Your task to perform on an android device: Open internet settings Image 0: 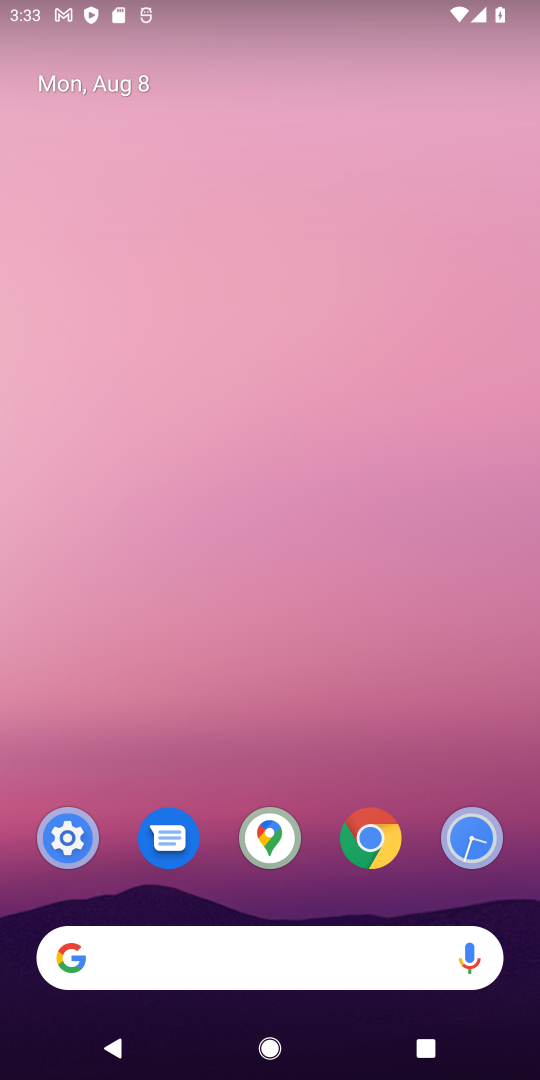
Step 0: drag from (239, 986) to (263, 367)
Your task to perform on an android device: Open internet settings Image 1: 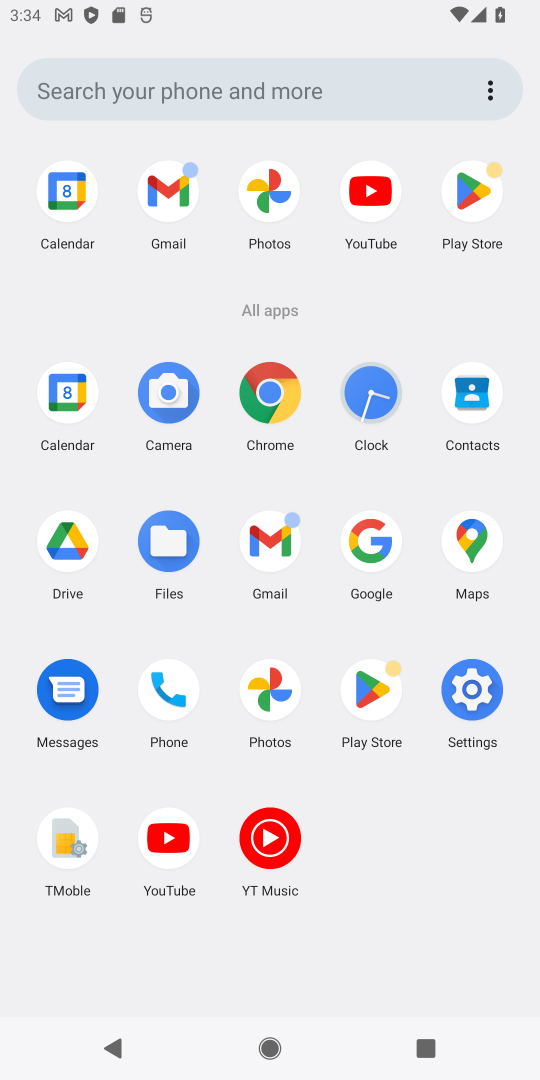
Step 1: click (474, 695)
Your task to perform on an android device: Open internet settings Image 2: 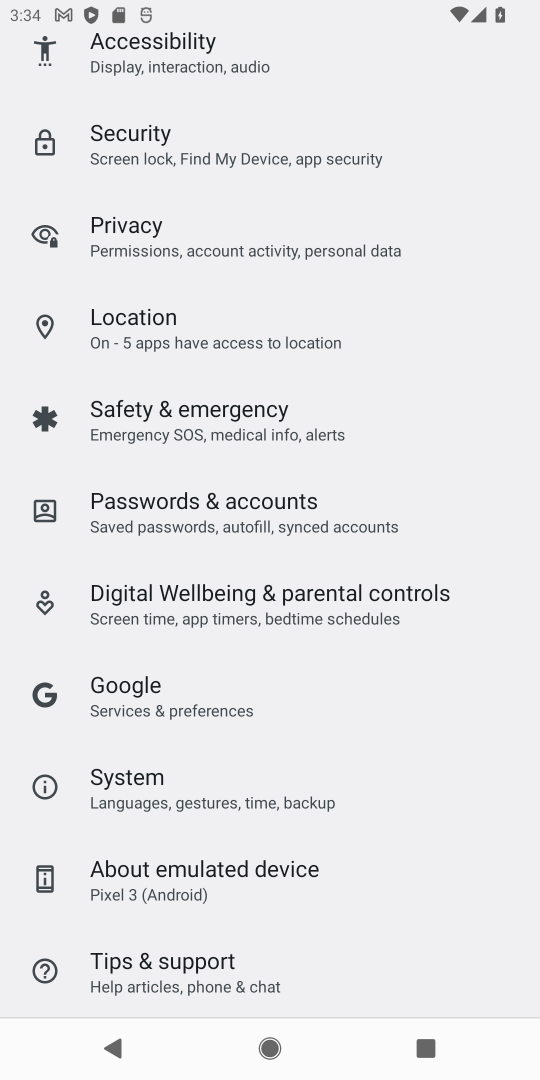
Step 2: drag from (355, 380) to (399, 688)
Your task to perform on an android device: Open internet settings Image 3: 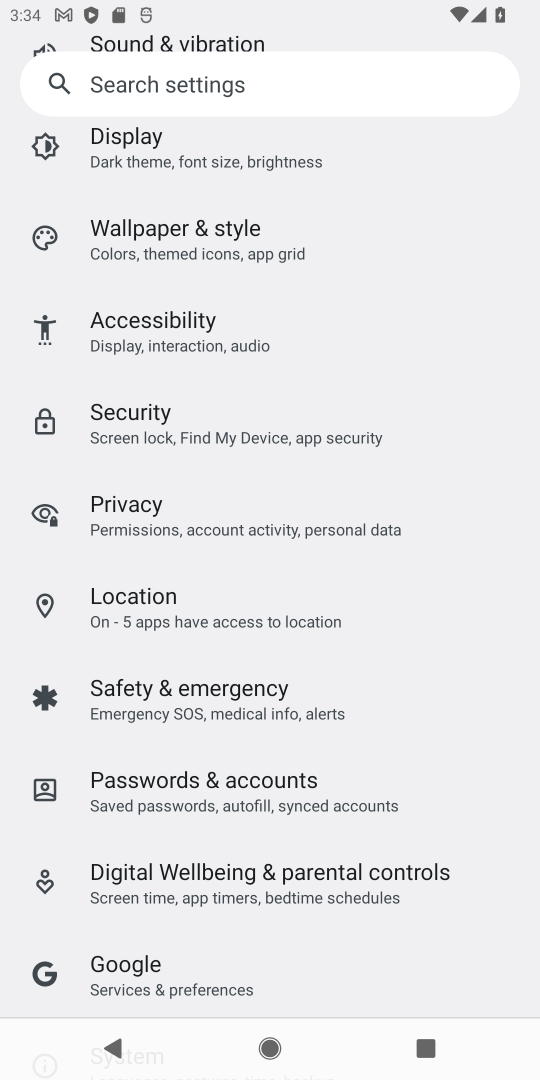
Step 3: drag from (314, 348) to (298, 589)
Your task to perform on an android device: Open internet settings Image 4: 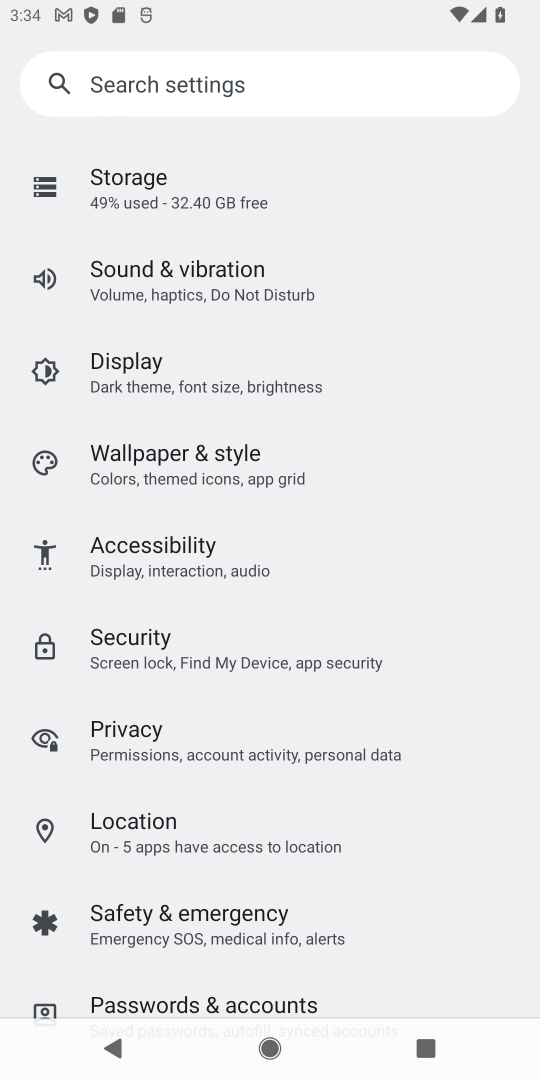
Step 4: drag from (321, 241) to (323, 441)
Your task to perform on an android device: Open internet settings Image 5: 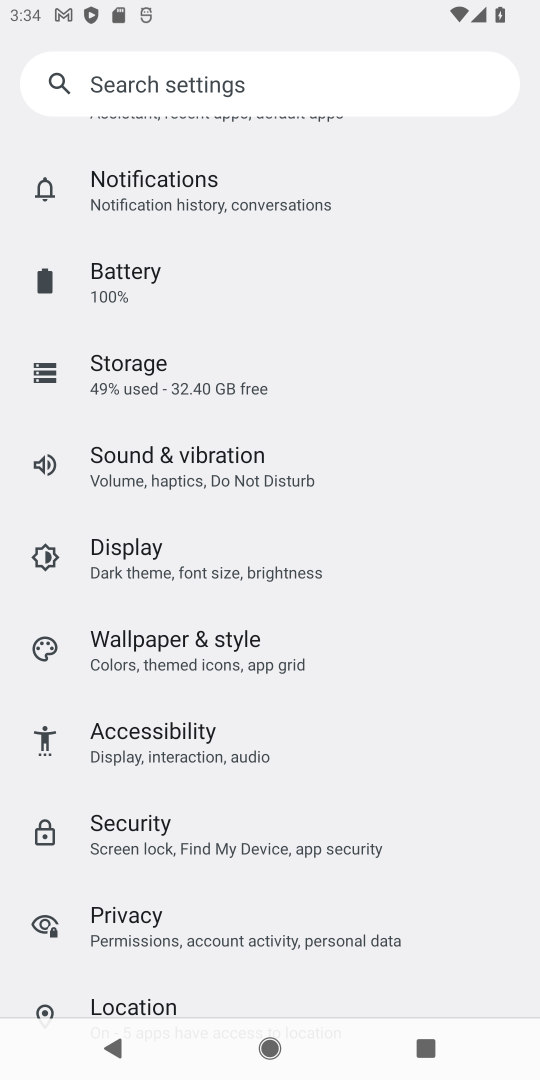
Step 5: drag from (309, 294) to (332, 587)
Your task to perform on an android device: Open internet settings Image 6: 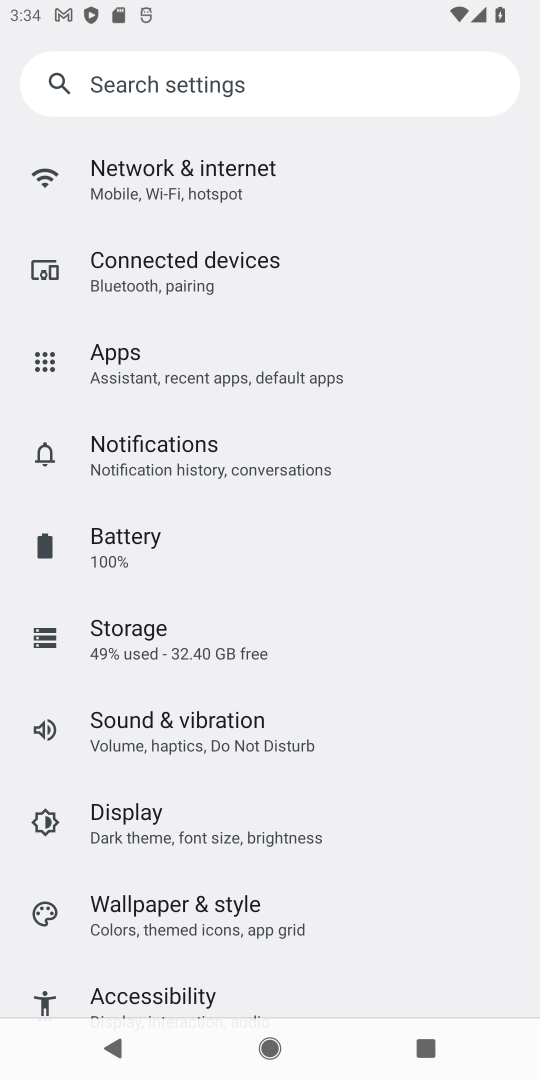
Step 6: click (212, 175)
Your task to perform on an android device: Open internet settings Image 7: 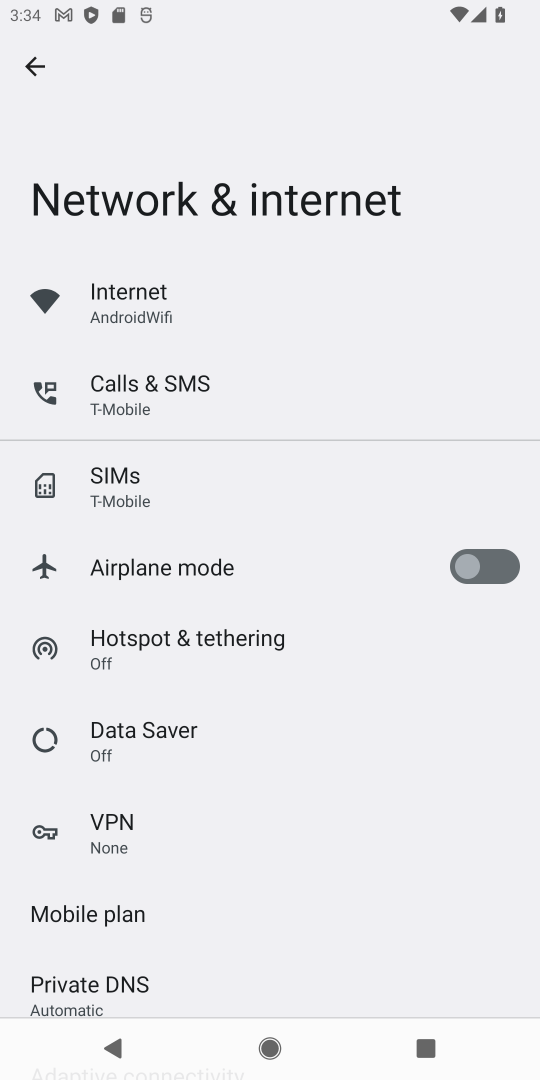
Step 7: click (151, 307)
Your task to perform on an android device: Open internet settings Image 8: 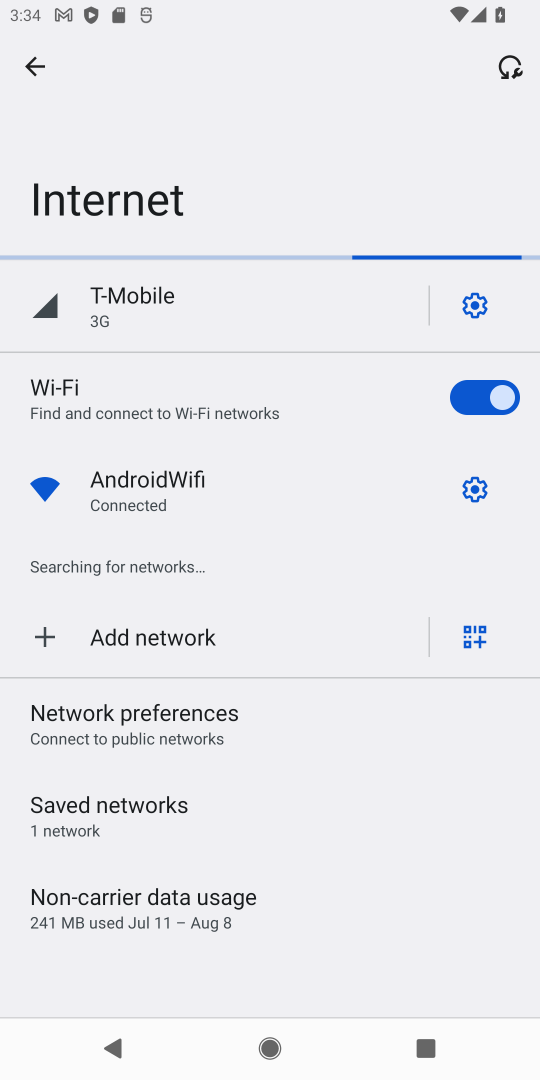
Step 8: task complete